Your task to perform on an android device: empty trash in the gmail app Image 0: 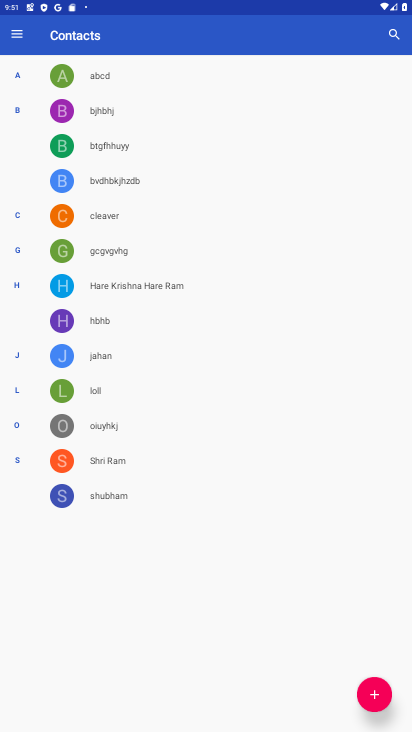
Step 0: press home button
Your task to perform on an android device: empty trash in the gmail app Image 1: 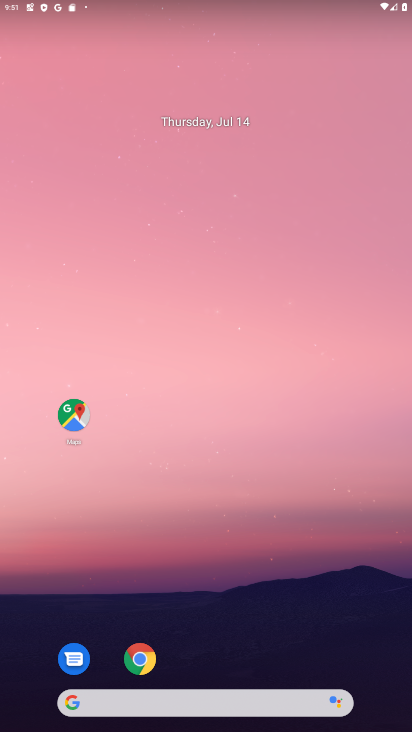
Step 1: drag from (277, 639) to (251, 121)
Your task to perform on an android device: empty trash in the gmail app Image 2: 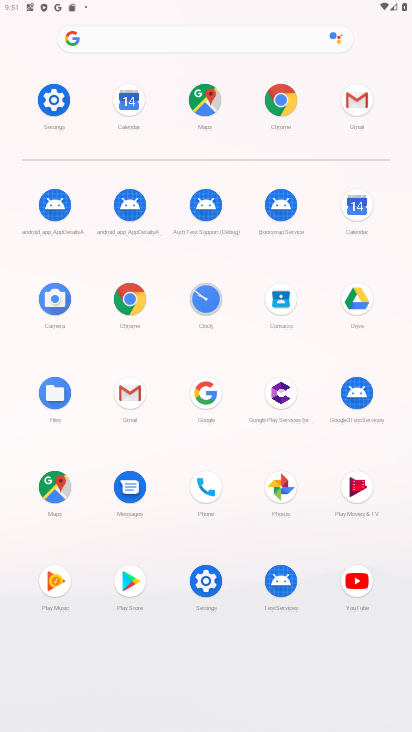
Step 2: click (351, 106)
Your task to perform on an android device: empty trash in the gmail app Image 3: 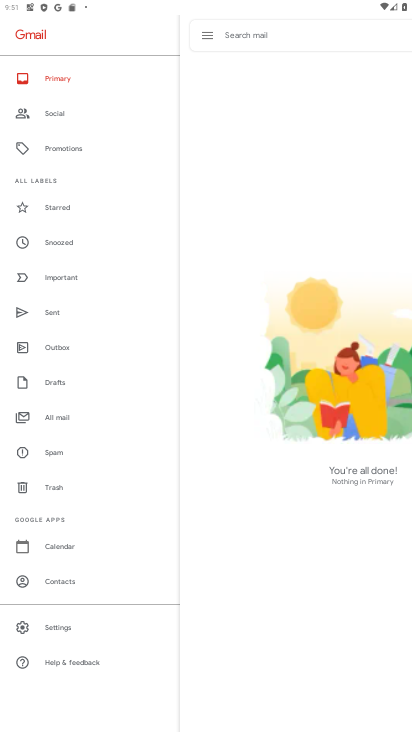
Step 3: click (56, 485)
Your task to perform on an android device: empty trash in the gmail app Image 4: 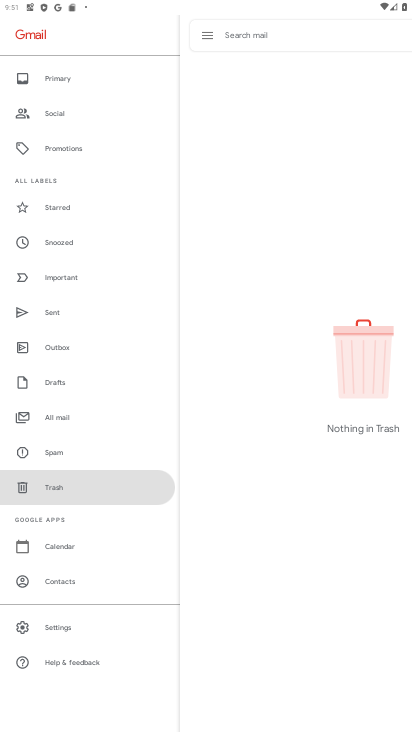
Step 4: task complete